Your task to perform on an android device: change the upload size in google photos Image 0: 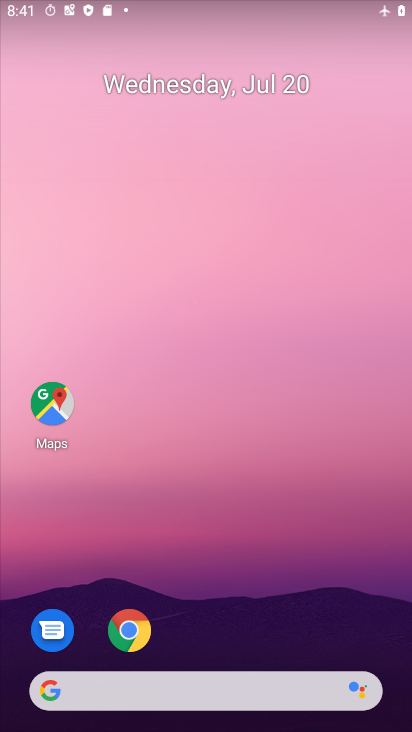
Step 0: drag from (226, 569) to (214, 112)
Your task to perform on an android device: change the upload size in google photos Image 1: 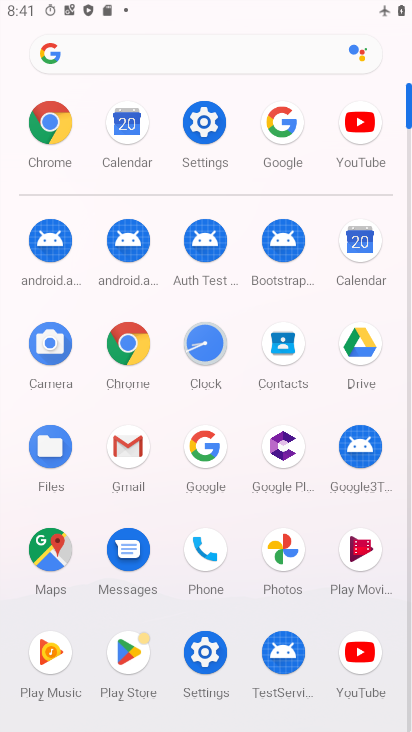
Step 1: click (289, 556)
Your task to perform on an android device: change the upload size in google photos Image 2: 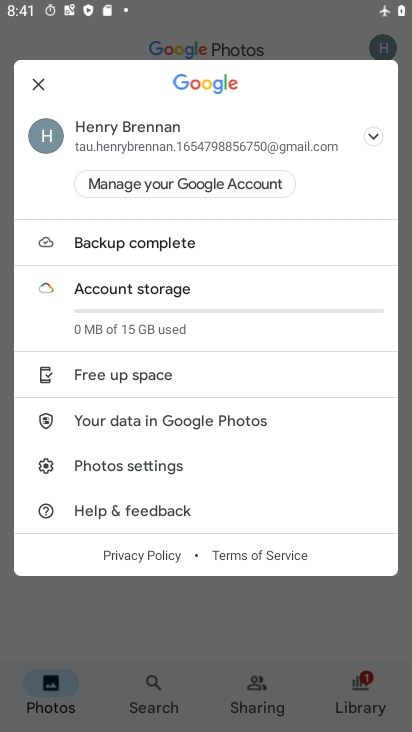
Step 2: click (143, 465)
Your task to perform on an android device: change the upload size in google photos Image 3: 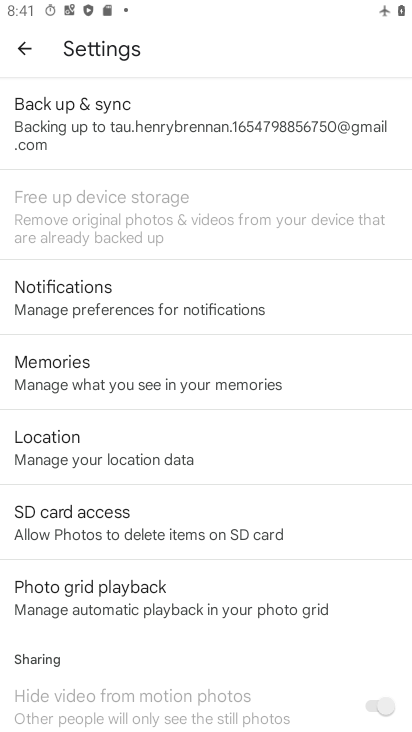
Step 3: click (197, 128)
Your task to perform on an android device: change the upload size in google photos Image 4: 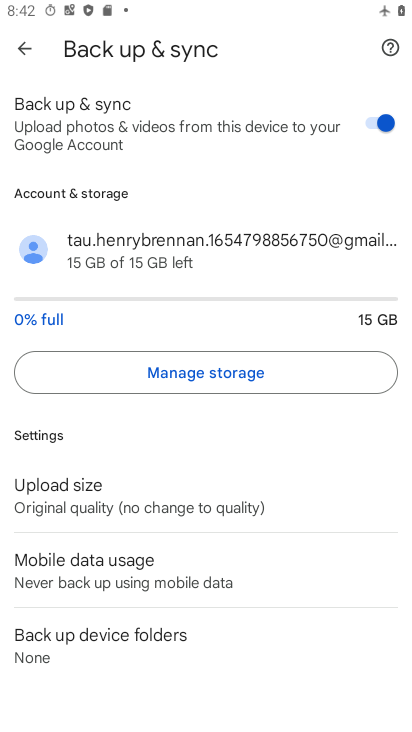
Step 4: click (140, 502)
Your task to perform on an android device: change the upload size in google photos Image 5: 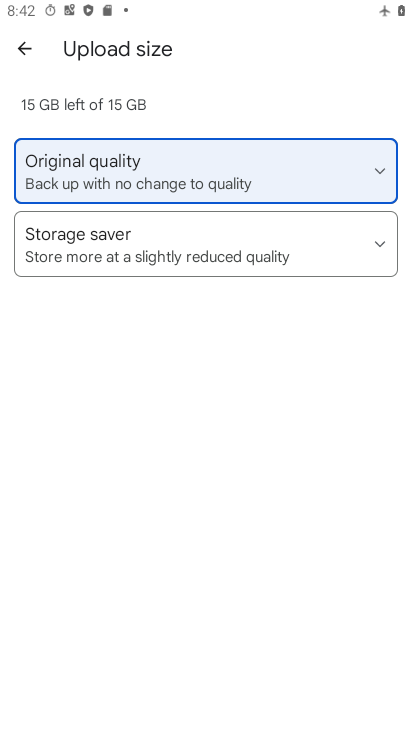
Step 5: click (116, 251)
Your task to perform on an android device: change the upload size in google photos Image 6: 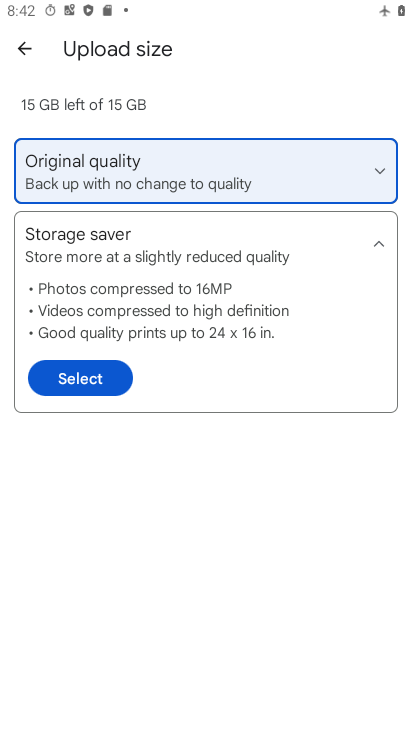
Step 6: click (70, 382)
Your task to perform on an android device: change the upload size in google photos Image 7: 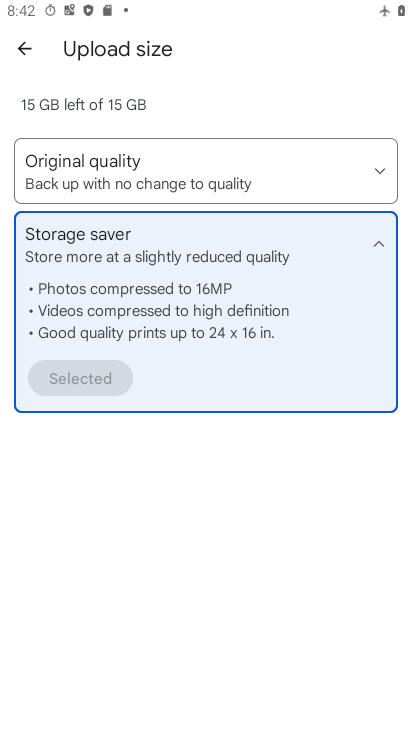
Step 7: task complete